Your task to perform on an android device: turn off data saver in the chrome app Image 0: 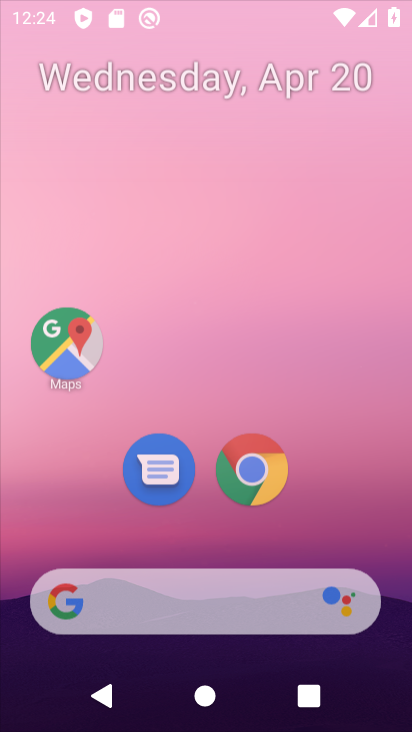
Step 0: drag from (302, 396) to (246, 63)
Your task to perform on an android device: turn off data saver in the chrome app Image 1: 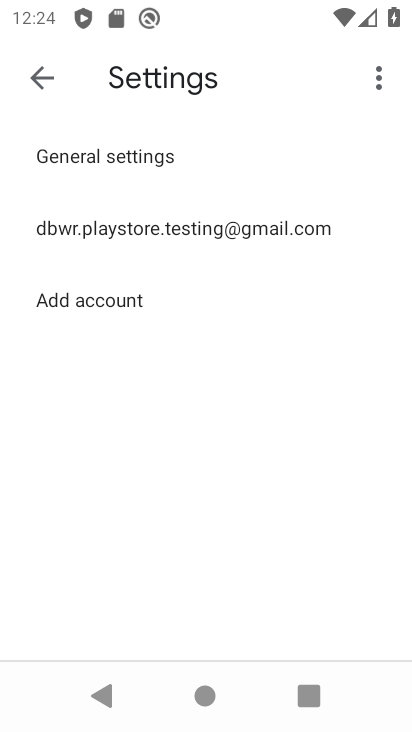
Step 1: press home button
Your task to perform on an android device: turn off data saver in the chrome app Image 2: 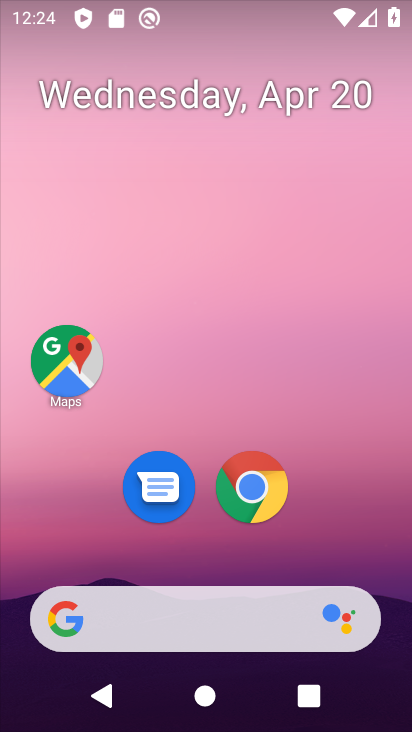
Step 2: drag from (375, 573) to (258, 1)
Your task to perform on an android device: turn off data saver in the chrome app Image 3: 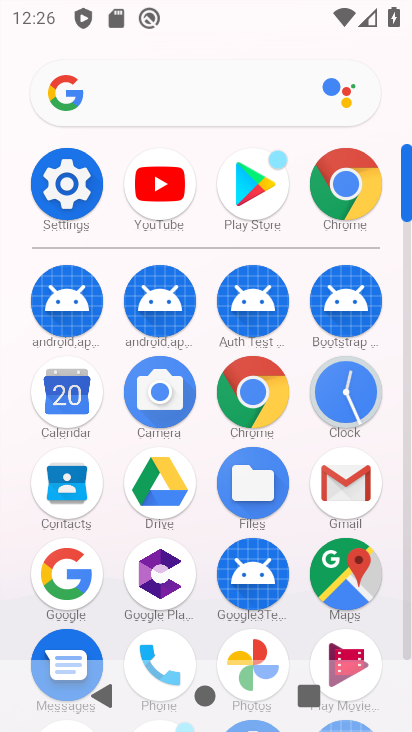
Step 3: click (260, 396)
Your task to perform on an android device: turn off data saver in the chrome app Image 4: 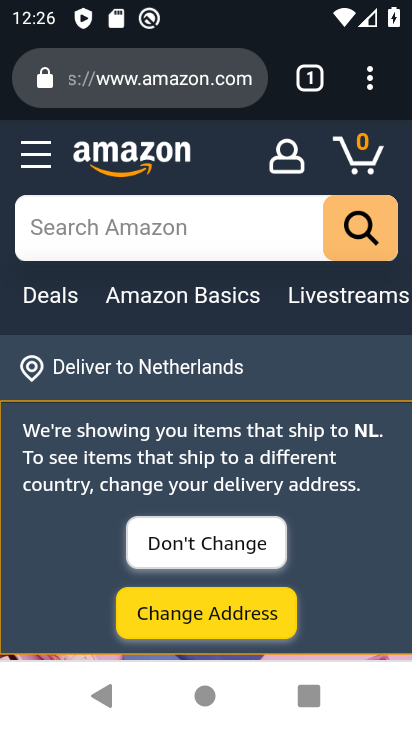
Step 4: press back button
Your task to perform on an android device: turn off data saver in the chrome app Image 5: 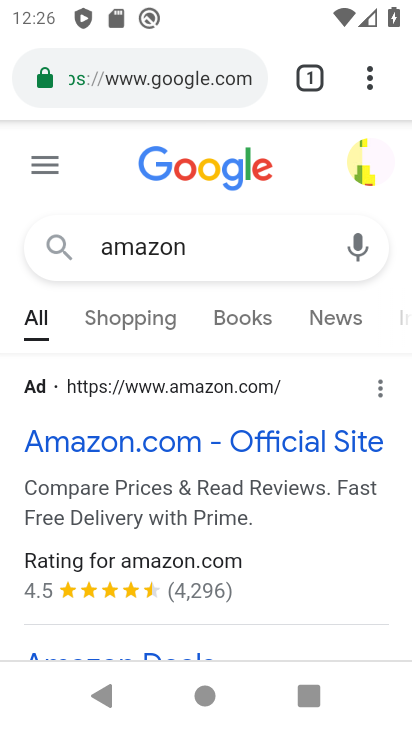
Step 5: press back button
Your task to perform on an android device: turn off data saver in the chrome app Image 6: 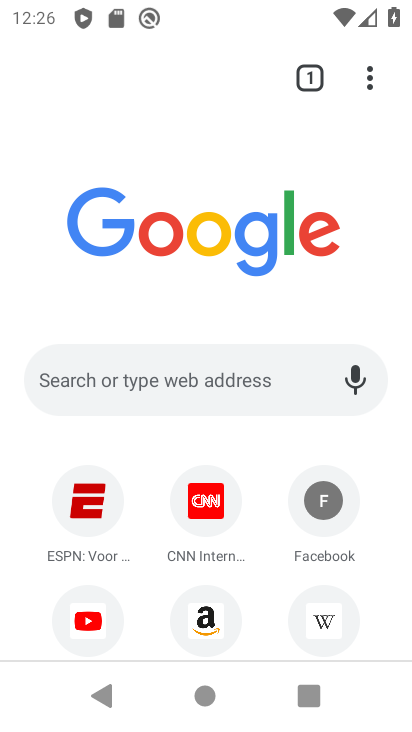
Step 6: click (367, 74)
Your task to perform on an android device: turn off data saver in the chrome app Image 7: 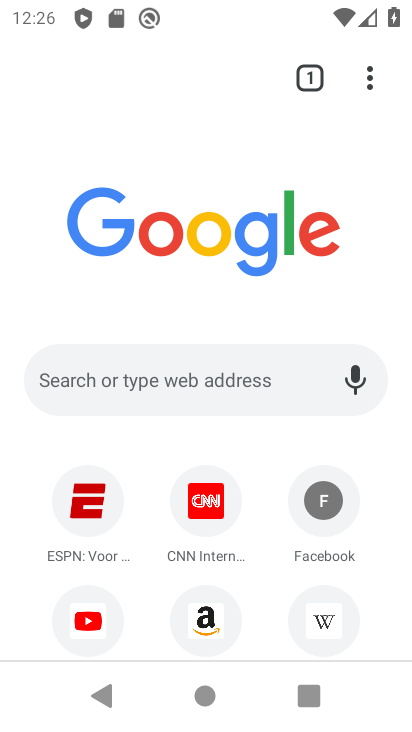
Step 7: click (367, 74)
Your task to perform on an android device: turn off data saver in the chrome app Image 8: 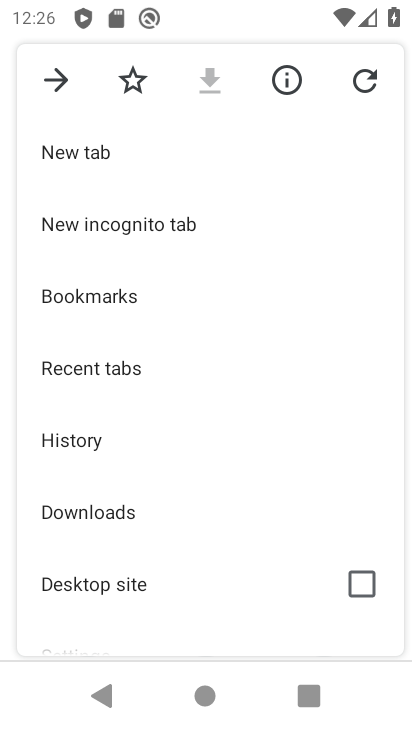
Step 8: drag from (194, 617) to (210, 431)
Your task to perform on an android device: turn off data saver in the chrome app Image 9: 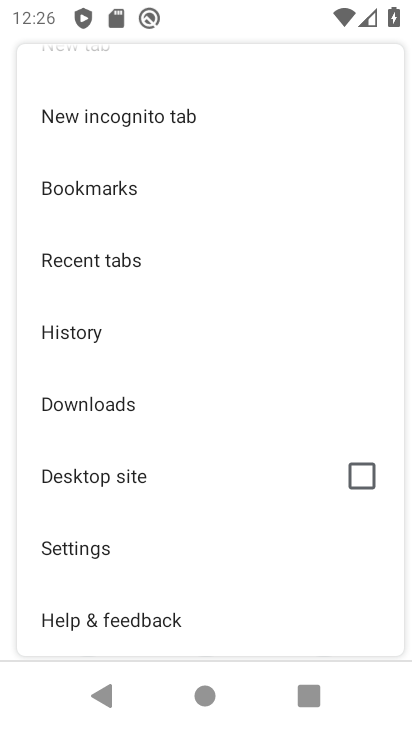
Step 9: click (153, 554)
Your task to perform on an android device: turn off data saver in the chrome app Image 10: 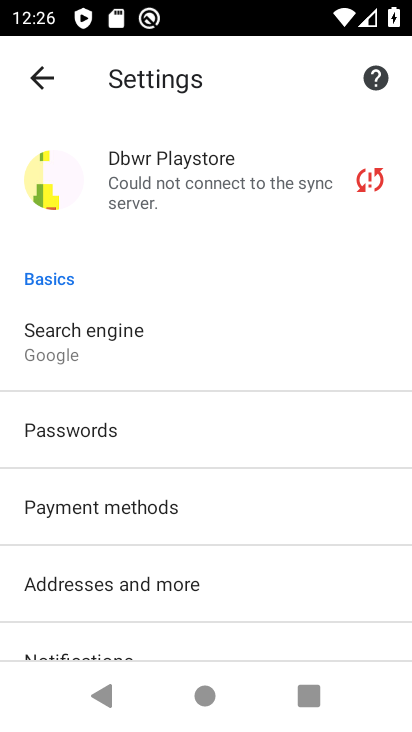
Step 10: drag from (152, 626) to (244, 142)
Your task to perform on an android device: turn off data saver in the chrome app Image 11: 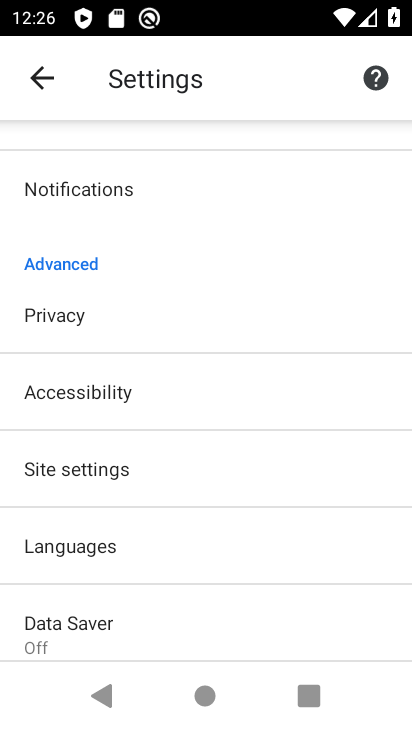
Step 11: click (134, 625)
Your task to perform on an android device: turn off data saver in the chrome app Image 12: 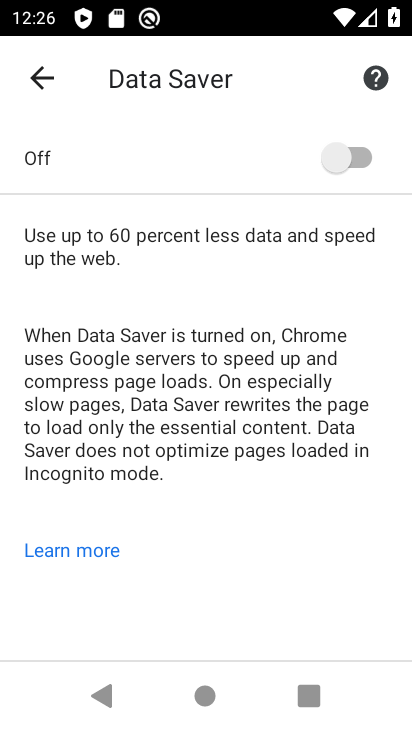
Step 12: task complete